Your task to perform on an android device: toggle improve location accuracy Image 0: 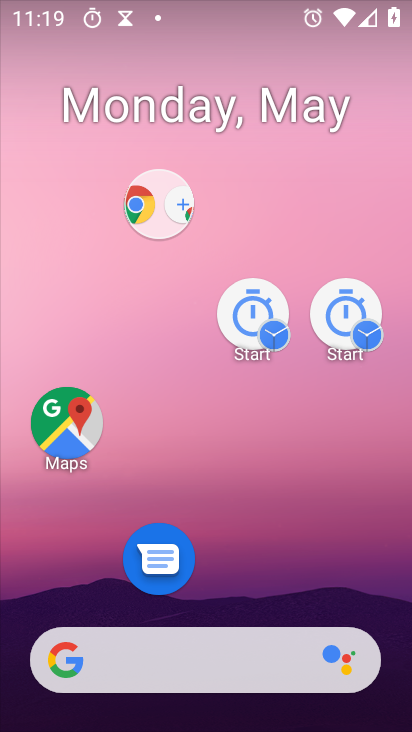
Step 0: drag from (268, 345) to (173, 68)
Your task to perform on an android device: toggle improve location accuracy Image 1: 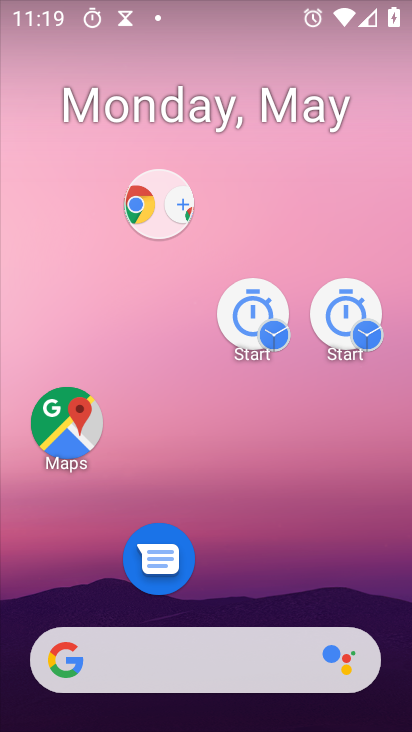
Step 1: drag from (267, 539) to (175, 64)
Your task to perform on an android device: toggle improve location accuracy Image 2: 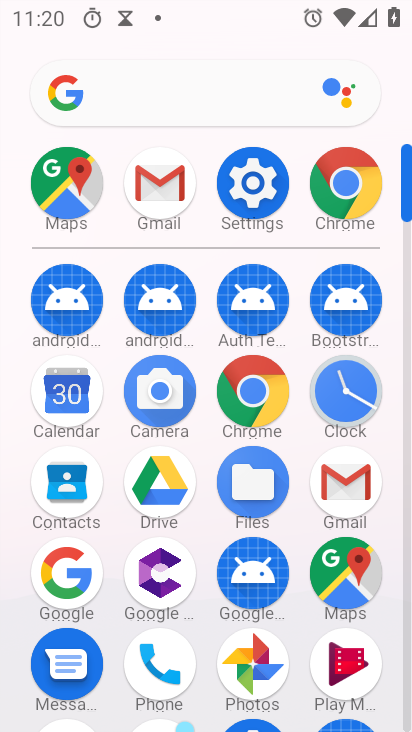
Step 2: click (241, 193)
Your task to perform on an android device: toggle improve location accuracy Image 3: 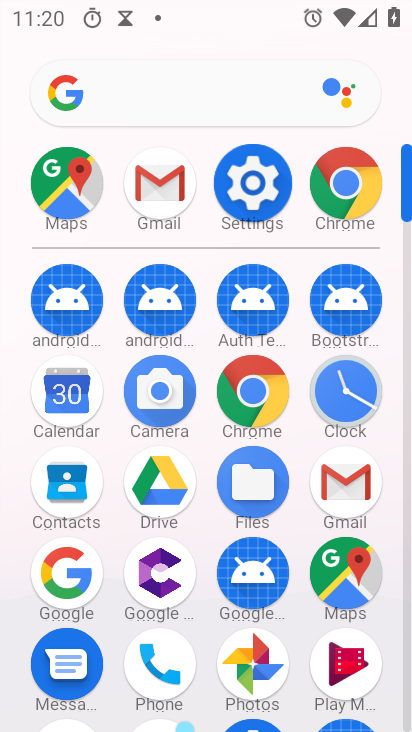
Step 3: click (245, 192)
Your task to perform on an android device: toggle improve location accuracy Image 4: 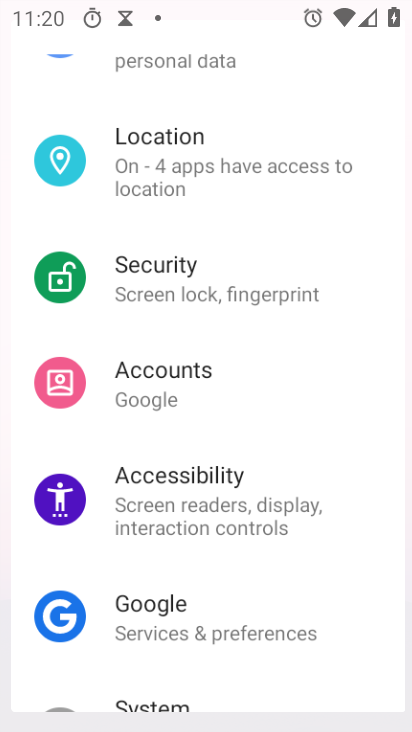
Step 4: click (246, 193)
Your task to perform on an android device: toggle improve location accuracy Image 5: 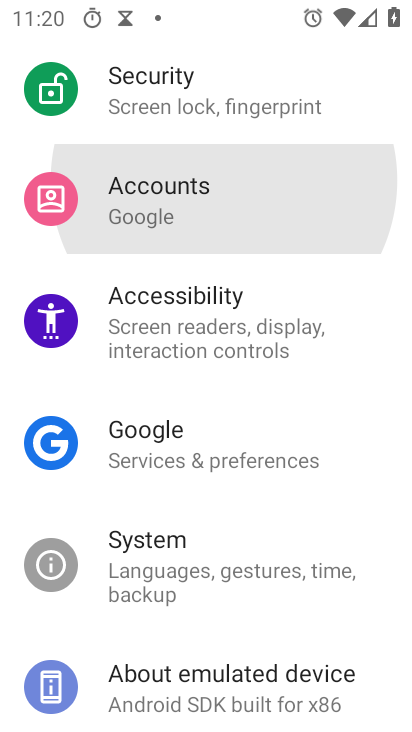
Step 5: click (246, 193)
Your task to perform on an android device: toggle improve location accuracy Image 6: 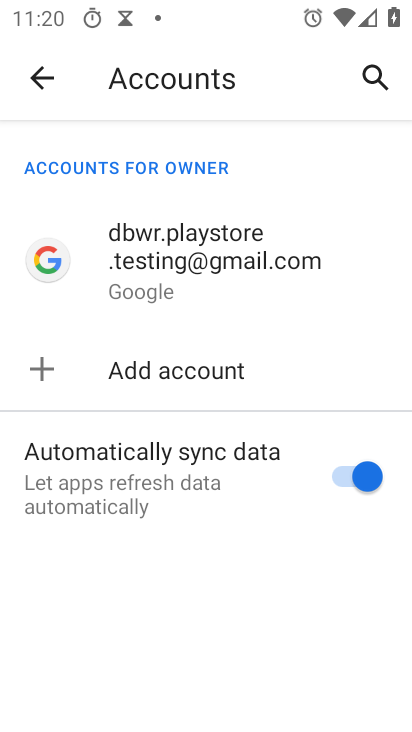
Step 6: click (36, 76)
Your task to perform on an android device: toggle improve location accuracy Image 7: 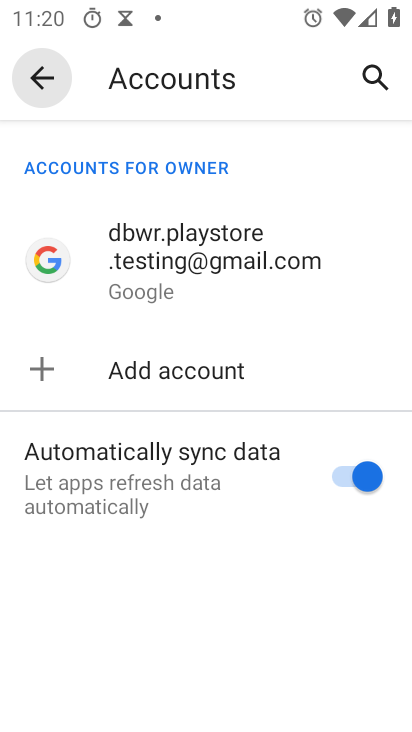
Step 7: click (38, 74)
Your task to perform on an android device: toggle improve location accuracy Image 8: 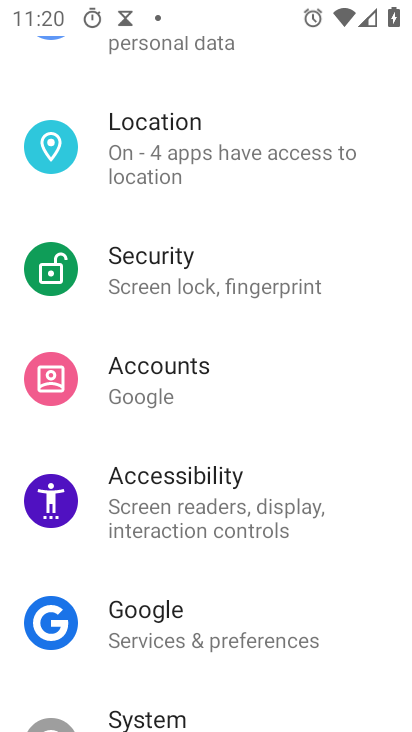
Step 8: click (171, 152)
Your task to perform on an android device: toggle improve location accuracy Image 9: 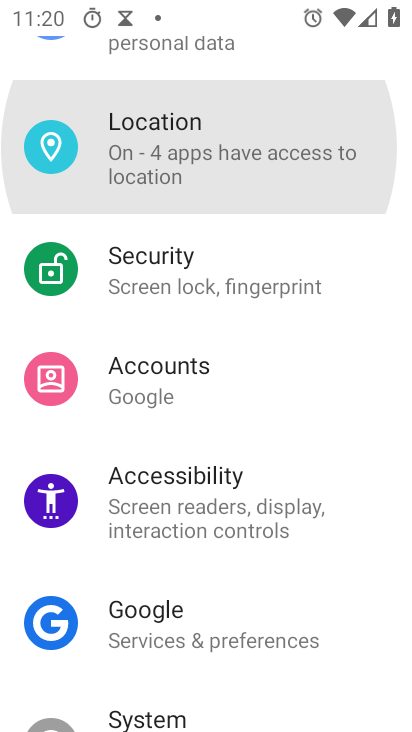
Step 9: click (171, 152)
Your task to perform on an android device: toggle improve location accuracy Image 10: 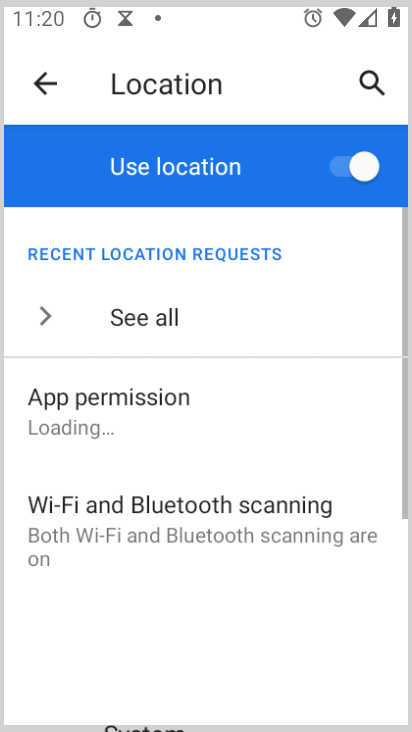
Step 10: click (172, 151)
Your task to perform on an android device: toggle improve location accuracy Image 11: 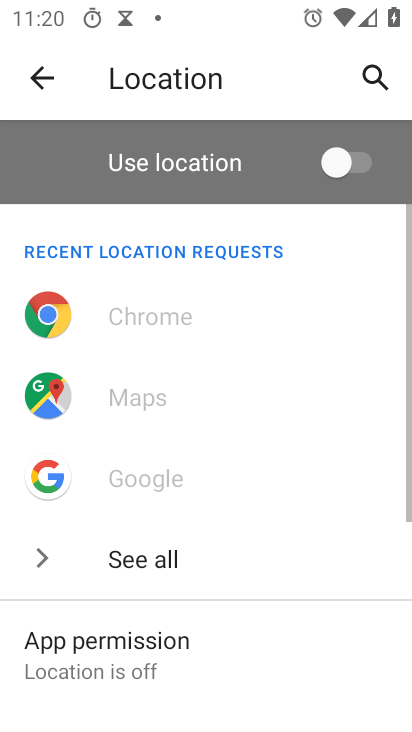
Step 11: drag from (161, 483) to (161, 115)
Your task to perform on an android device: toggle improve location accuracy Image 12: 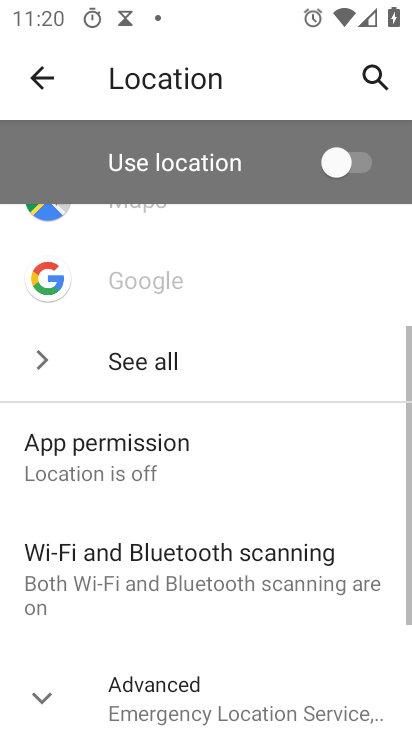
Step 12: drag from (207, 430) to (196, 98)
Your task to perform on an android device: toggle improve location accuracy Image 13: 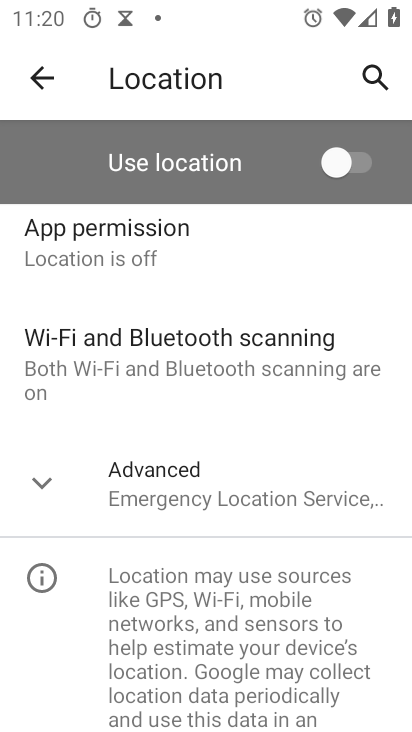
Step 13: click (183, 482)
Your task to perform on an android device: toggle improve location accuracy Image 14: 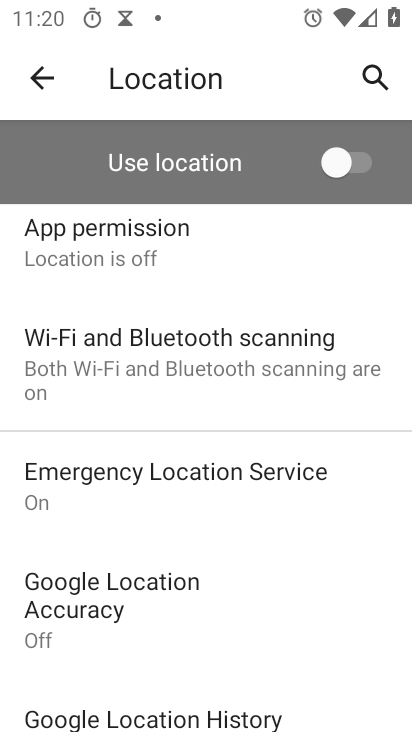
Step 14: drag from (185, 575) to (171, 281)
Your task to perform on an android device: toggle improve location accuracy Image 15: 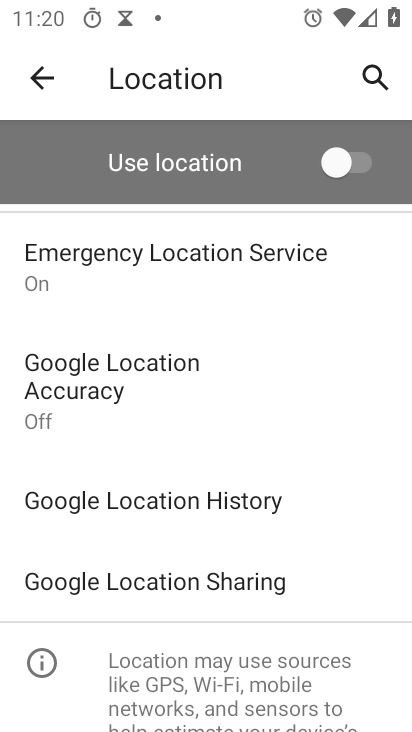
Step 15: click (49, 383)
Your task to perform on an android device: toggle improve location accuracy Image 16: 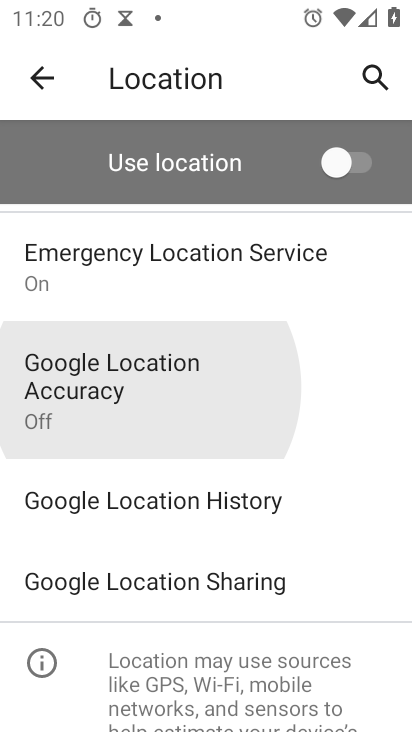
Step 16: click (48, 382)
Your task to perform on an android device: toggle improve location accuracy Image 17: 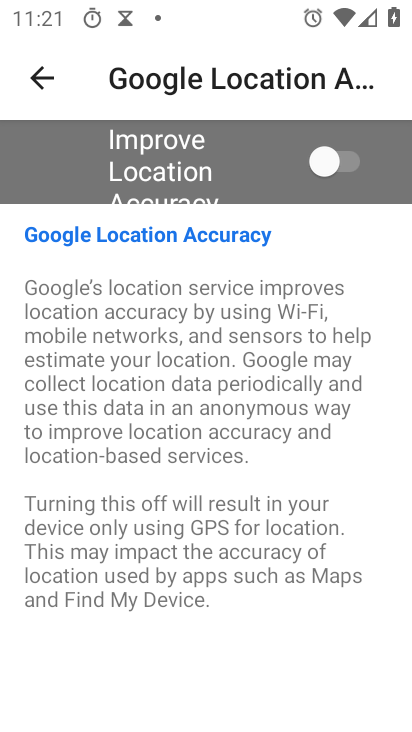
Step 17: click (317, 157)
Your task to perform on an android device: toggle improve location accuracy Image 18: 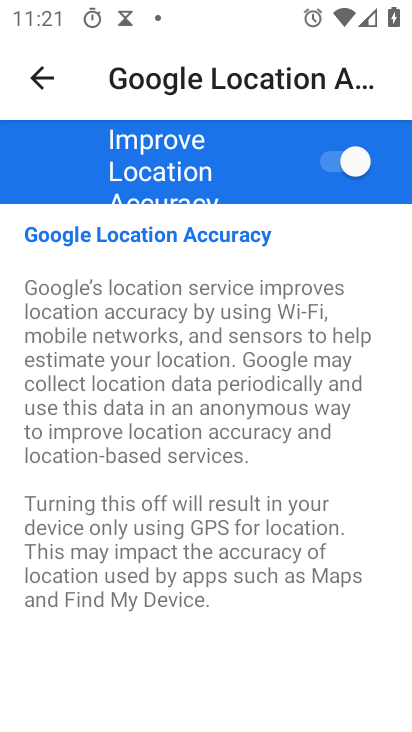
Step 18: task complete